Your task to perform on an android device: What is the recent news? Image 0: 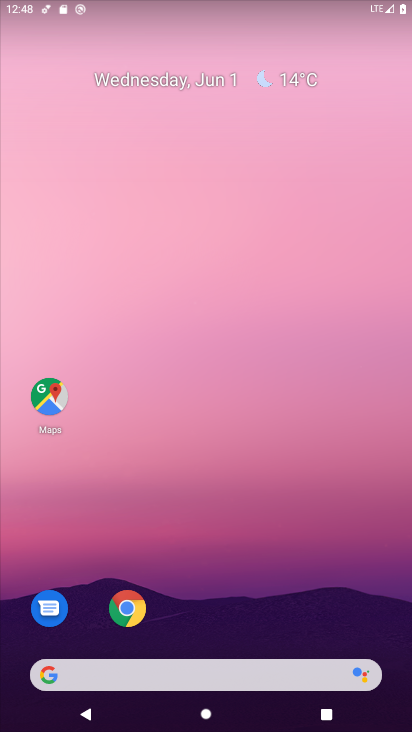
Step 0: click (207, 672)
Your task to perform on an android device: What is the recent news? Image 1: 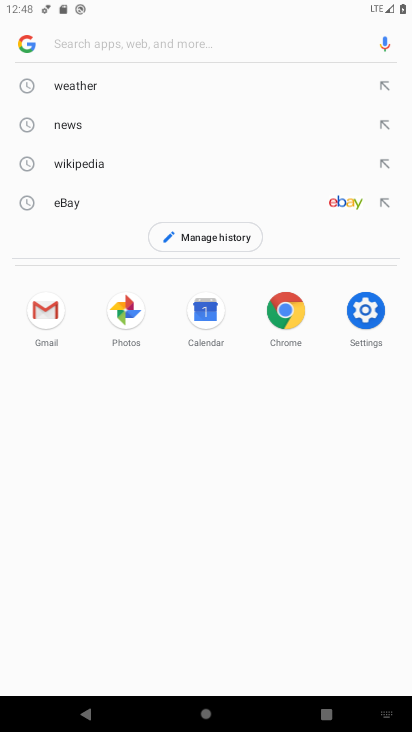
Step 1: type "recent news"
Your task to perform on an android device: What is the recent news? Image 2: 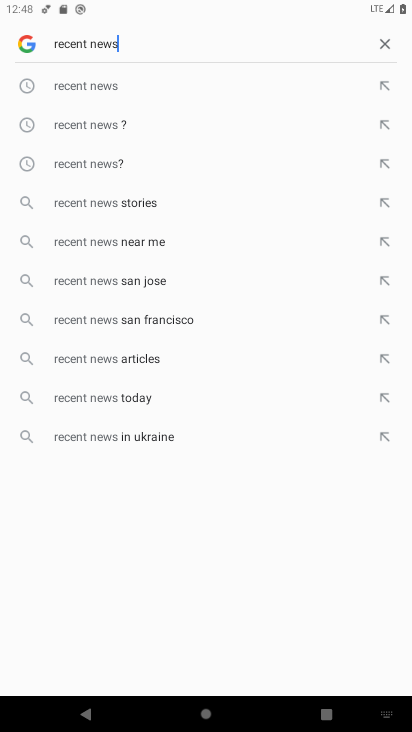
Step 2: click (117, 127)
Your task to perform on an android device: What is the recent news? Image 3: 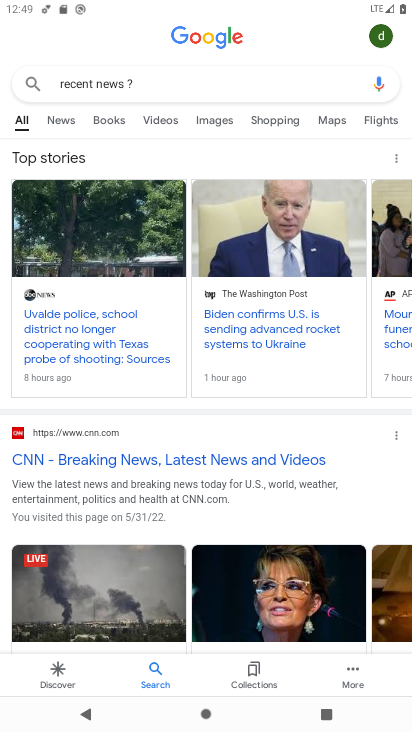
Step 3: task complete